Your task to perform on an android device: move a message to another label in the gmail app Image 0: 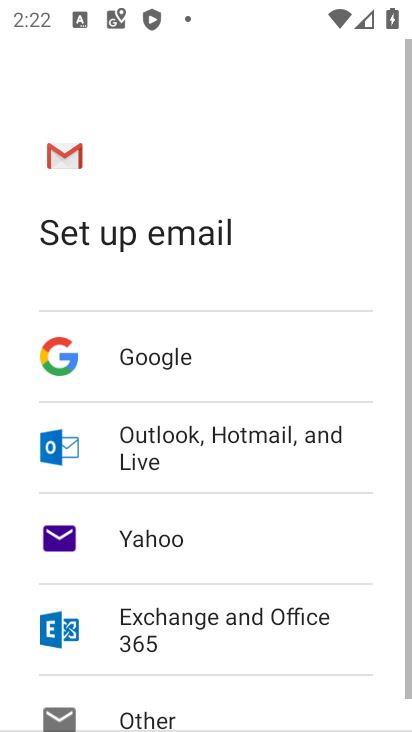
Step 0: press home button
Your task to perform on an android device: move a message to another label in the gmail app Image 1: 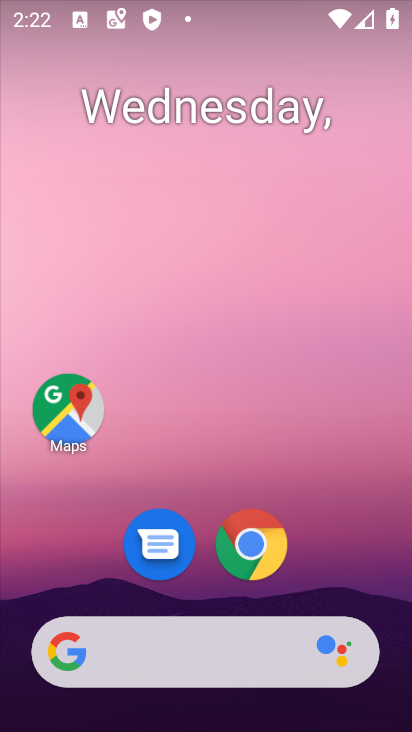
Step 1: drag from (393, 625) to (291, 207)
Your task to perform on an android device: move a message to another label in the gmail app Image 2: 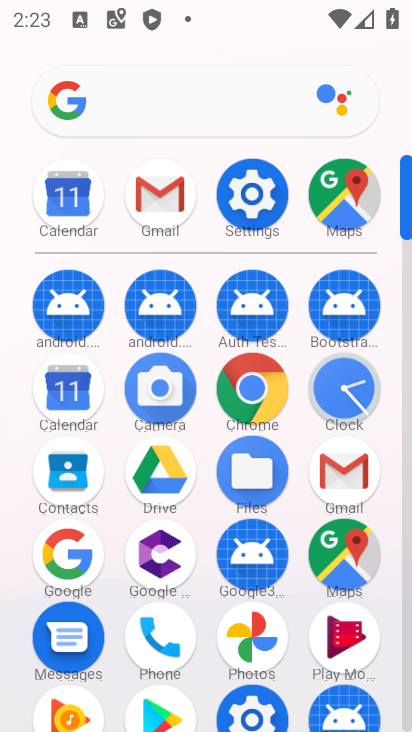
Step 2: click (409, 714)
Your task to perform on an android device: move a message to another label in the gmail app Image 3: 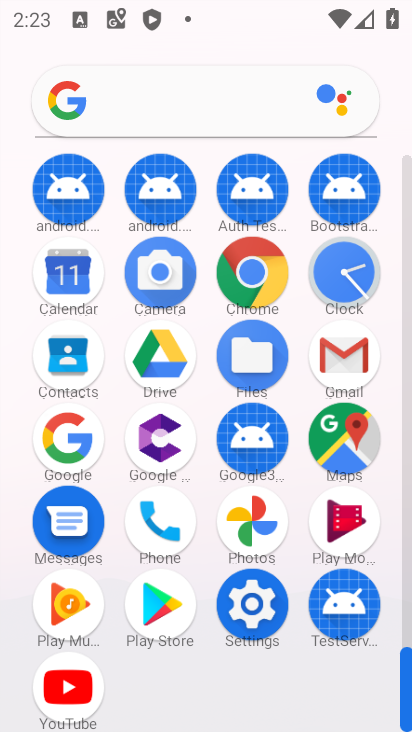
Step 3: click (339, 354)
Your task to perform on an android device: move a message to another label in the gmail app Image 4: 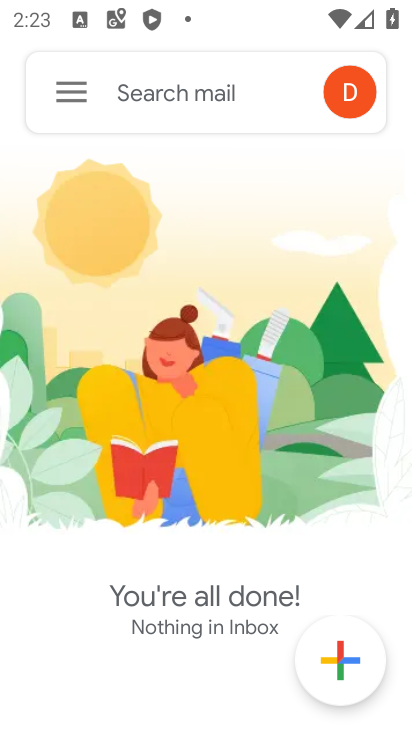
Step 4: click (73, 84)
Your task to perform on an android device: move a message to another label in the gmail app Image 5: 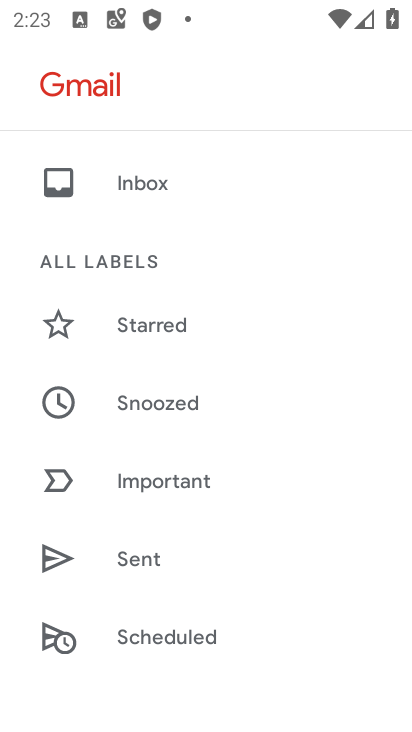
Step 5: drag from (251, 601) to (261, 318)
Your task to perform on an android device: move a message to another label in the gmail app Image 6: 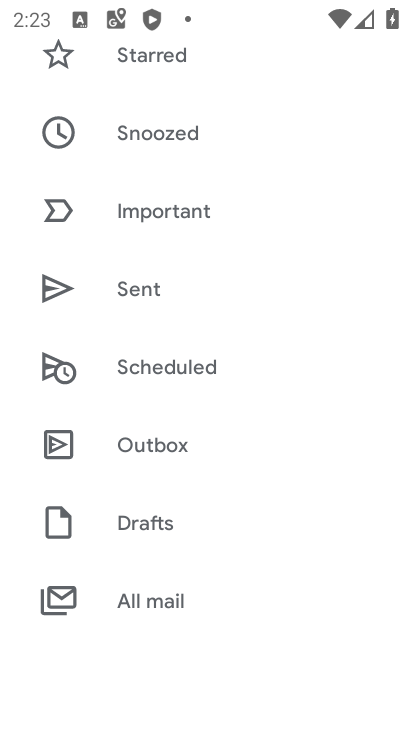
Step 6: click (156, 599)
Your task to perform on an android device: move a message to another label in the gmail app Image 7: 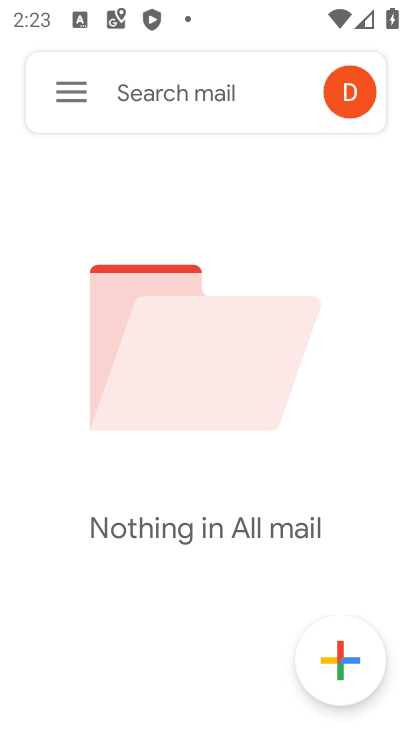
Step 7: task complete